Your task to perform on an android device: Open the Play Movies app and select the watchlist tab. Image 0: 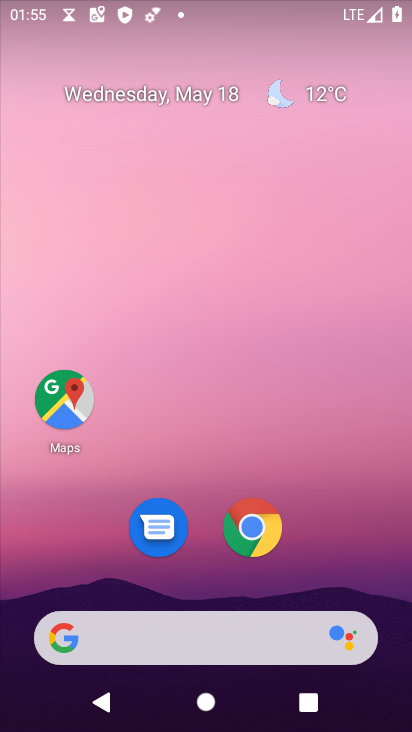
Step 0: drag from (358, 583) to (243, 196)
Your task to perform on an android device: Open the Play Movies app and select the watchlist tab. Image 1: 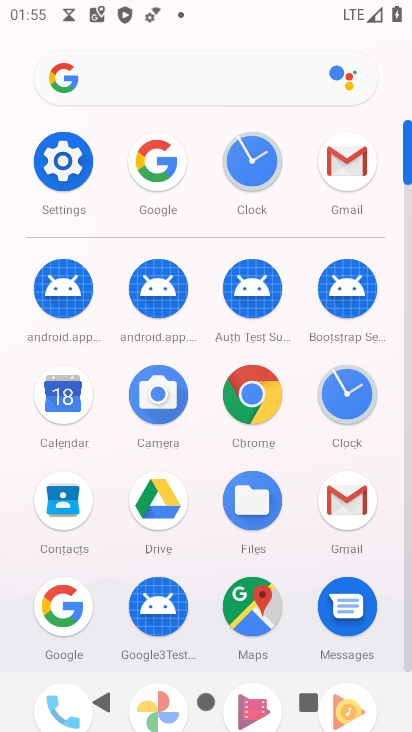
Step 1: drag from (312, 619) to (289, 385)
Your task to perform on an android device: Open the Play Movies app and select the watchlist tab. Image 2: 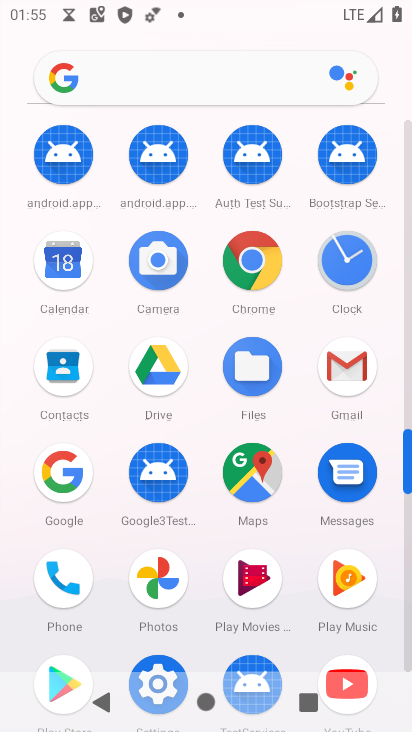
Step 2: click (253, 582)
Your task to perform on an android device: Open the Play Movies app and select the watchlist tab. Image 3: 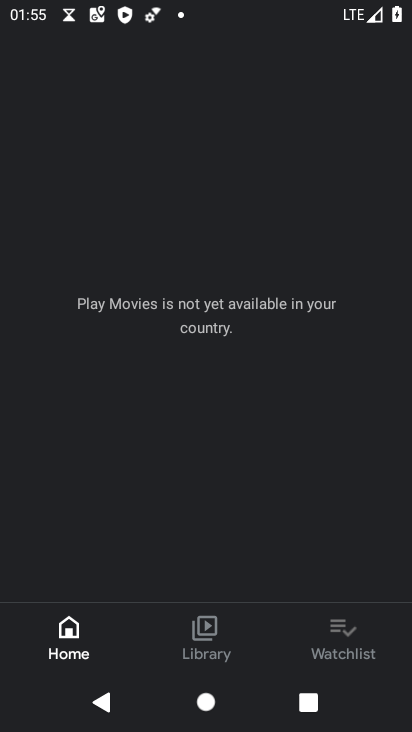
Step 3: click (343, 647)
Your task to perform on an android device: Open the Play Movies app and select the watchlist tab. Image 4: 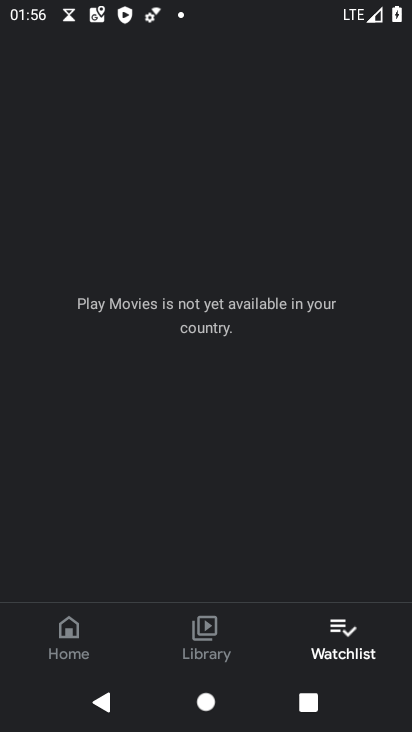
Step 4: task complete